Your task to perform on an android device: turn on the 12-hour format for clock Image 0: 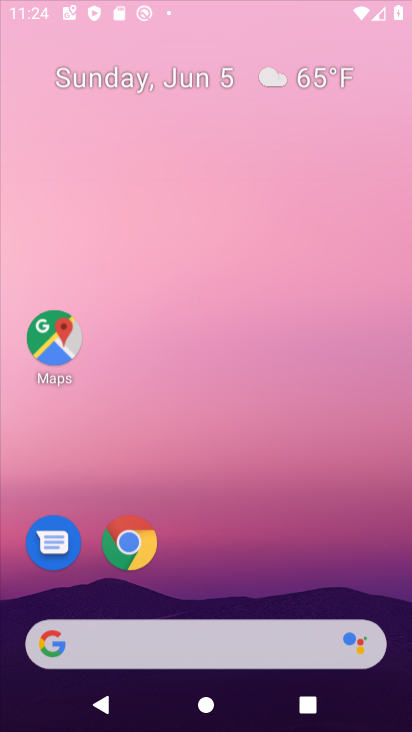
Step 0: click (141, 323)
Your task to perform on an android device: turn on the 12-hour format for clock Image 1: 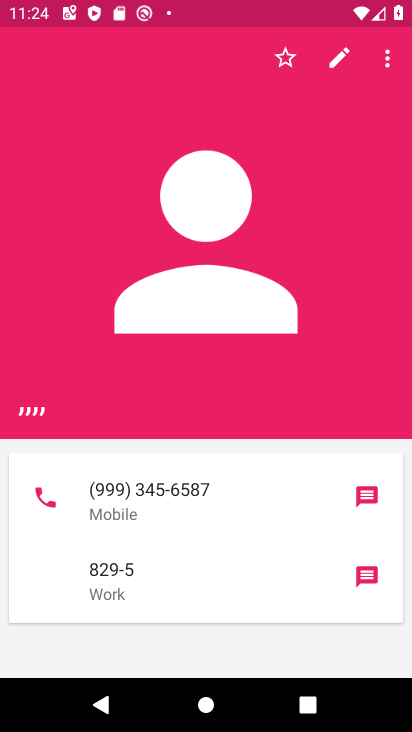
Step 1: press home button
Your task to perform on an android device: turn on the 12-hour format for clock Image 2: 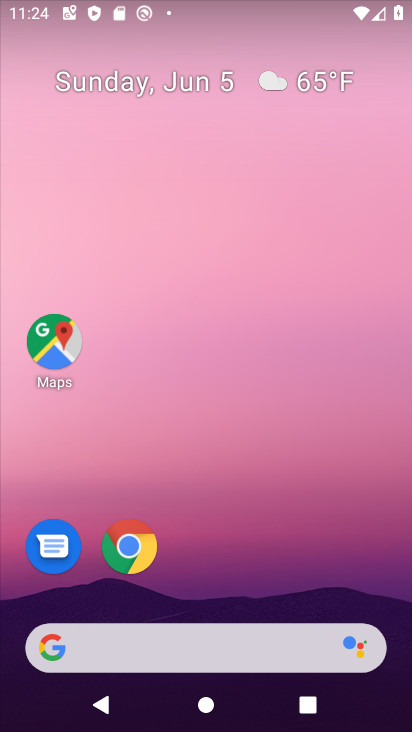
Step 2: drag from (181, 625) to (161, 295)
Your task to perform on an android device: turn on the 12-hour format for clock Image 3: 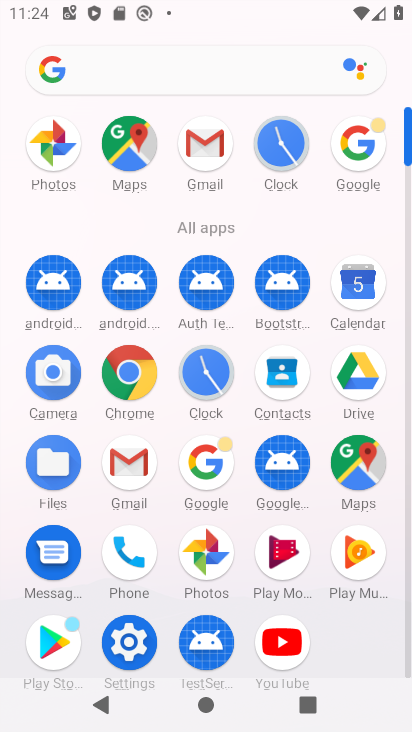
Step 3: click (209, 367)
Your task to perform on an android device: turn on the 12-hour format for clock Image 4: 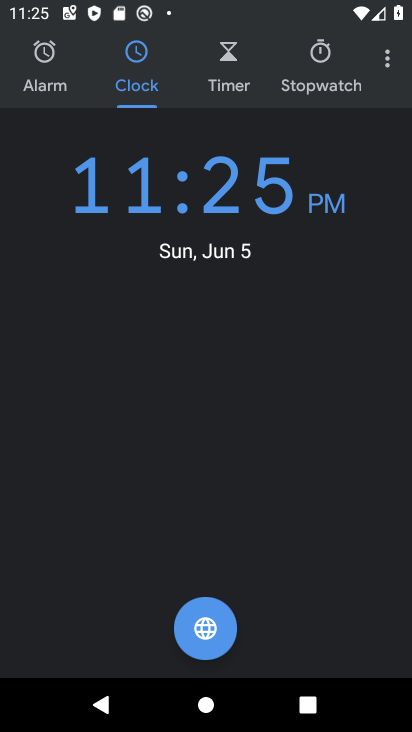
Step 4: click (386, 54)
Your task to perform on an android device: turn on the 12-hour format for clock Image 5: 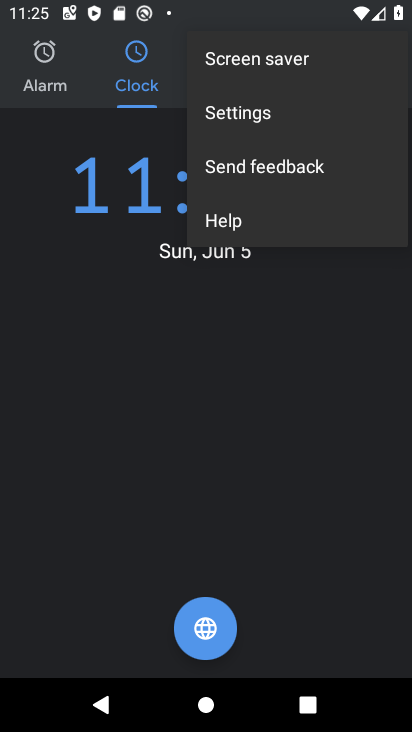
Step 5: click (220, 125)
Your task to perform on an android device: turn on the 12-hour format for clock Image 6: 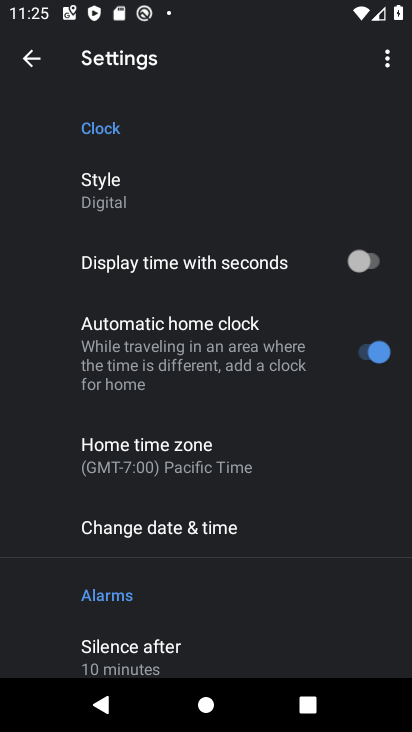
Step 6: click (116, 522)
Your task to perform on an android device: turn on the 12-hour format for clock Image 7: 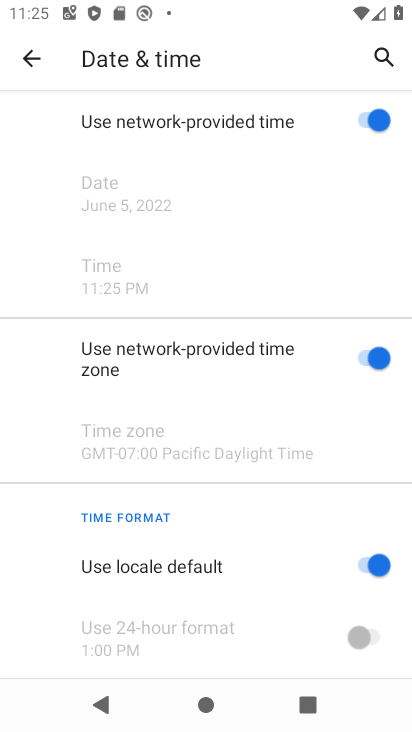
Step 7: task complete